Your task to perform on an android device: What's on my calendar today? Image 0: 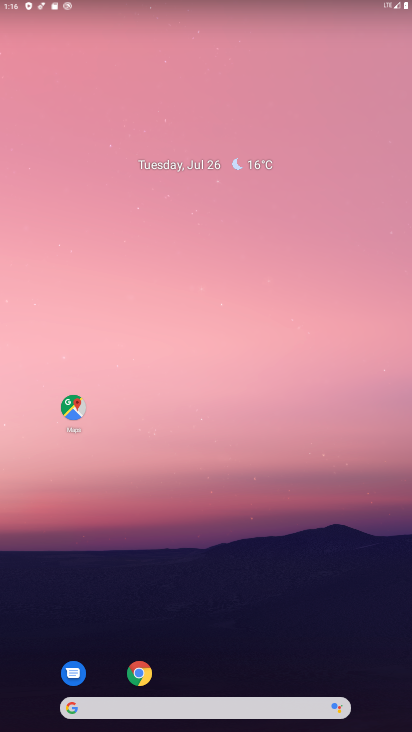
Step 0: drag from (199, 719) to (199, 82)
Your task to perform on an android device: What's on my calendar today? Image 1: 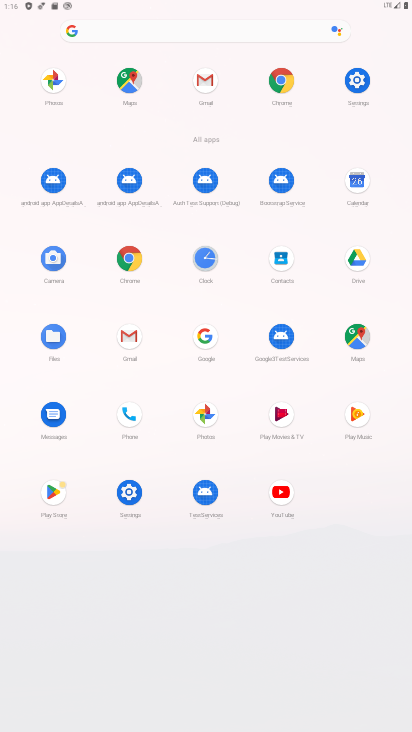
Step 1: click (357, 183)
Your task to perform on an android device: What's on my calendar today? Image 2: 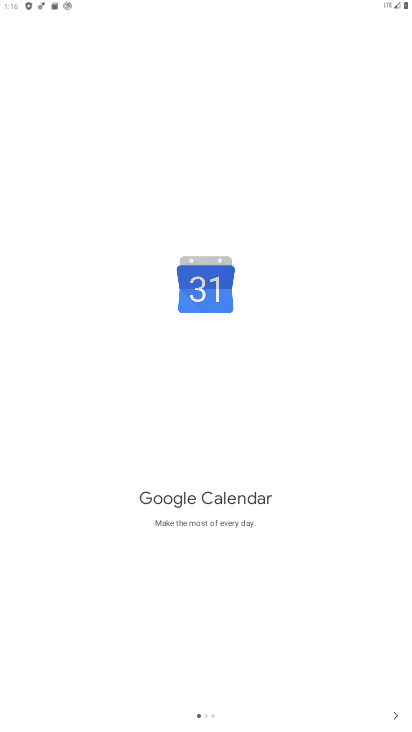
Step 2: click (401, 712)
Your task to perform on an android device: What's on my calendar today? Image 3: 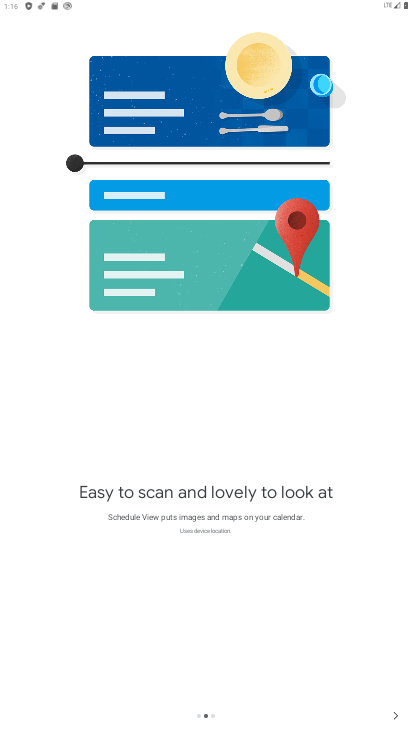
Step 3: click (401, 712)
Your task to perform on an android device: What's on my calendar today? Image 4: 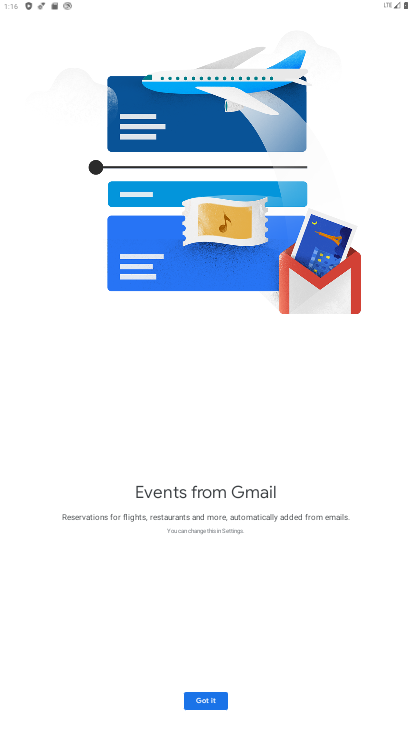
Step 4: click (202, 705)
Your task to perform on an android device: What's on my calendar today? Image 5: 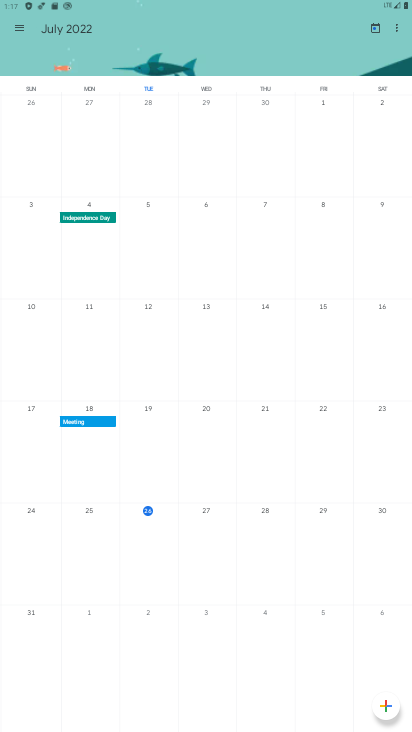
Step 5: click (28, 100)
Your task to perform on an android device: What's on my calendar today? Image 6: 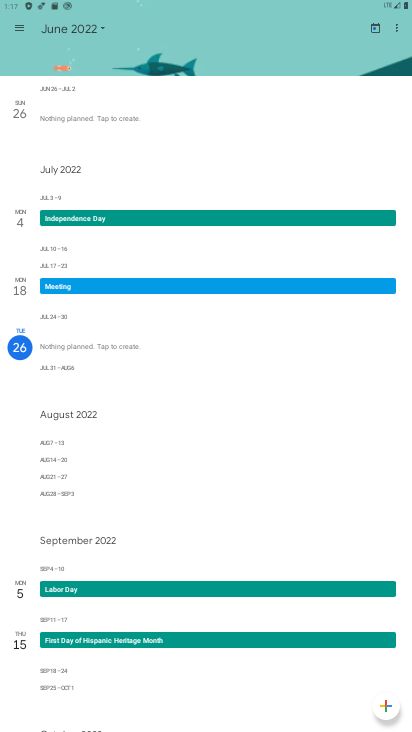
Step 6: task complete